Your task to perform on an android device: Open Wikipedia Image 0: 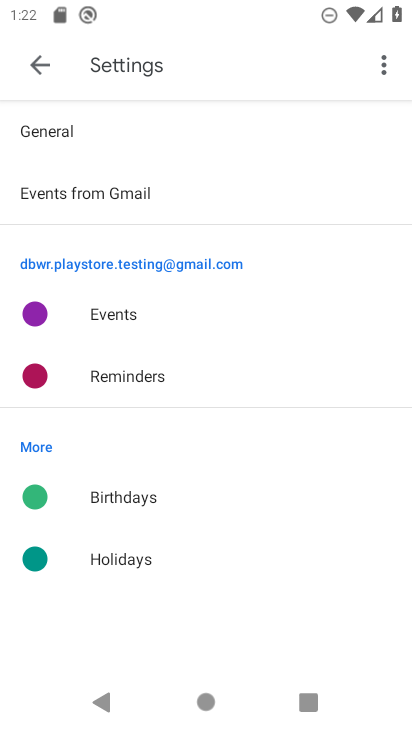
Step 0: press home button
Your task to perform on an android device: Open Wikipedia Image 1: 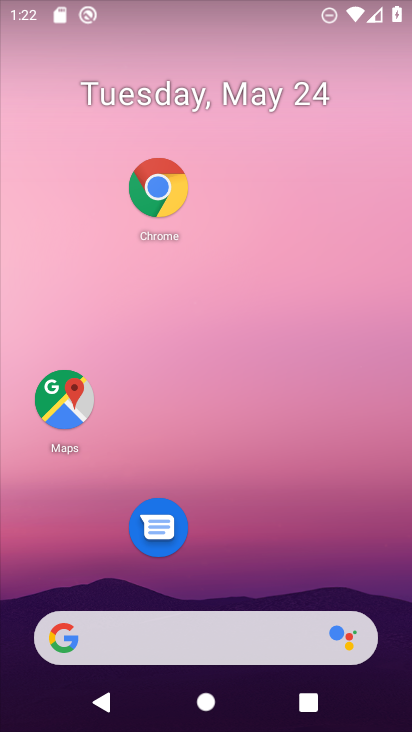
Step 1: drag from (207, 562) to (184, 60)
Your task to perform on an android device: Open Wikipedia Image 2: 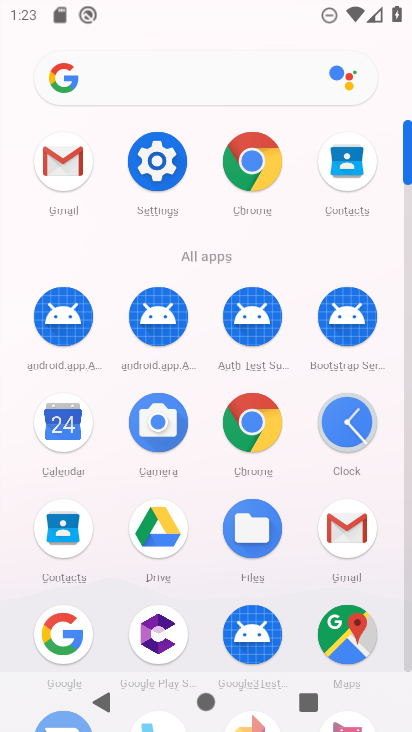
Step 2: click (257, 215)
Your task to perform on an android device: Open Wikipedia Image 3: 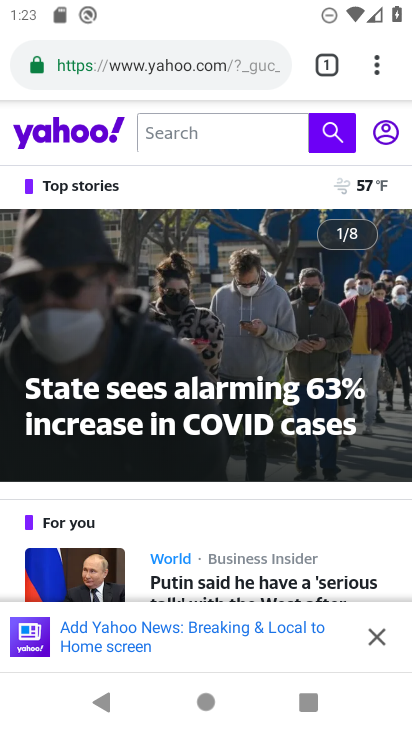
Step 3: press back button
Your task to perform on an android device: Open Wikipedia Image 4: 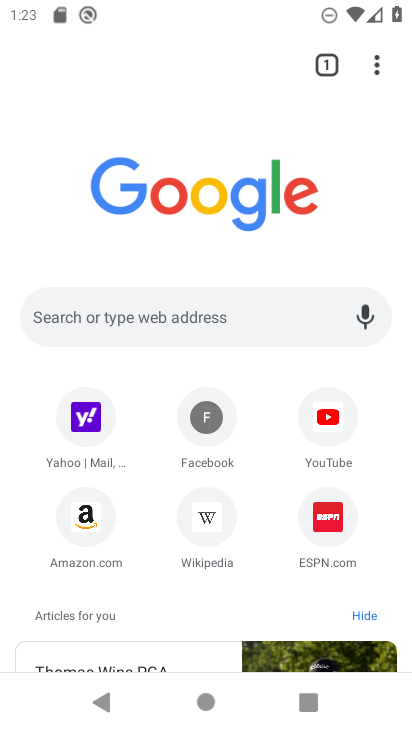
Step 4: click (220, 524)
Your task to perform on an android device: Open Wikipedia Image 5: 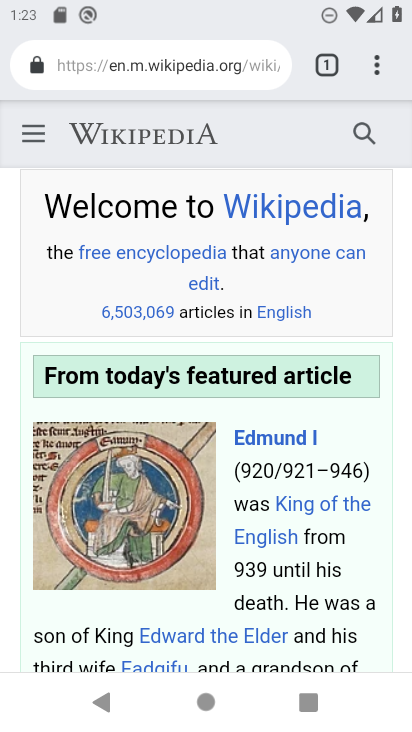
Step 5: task complete